Your task to perform on an android device: Open Google Chrome and open the bookmarks view Image 0: 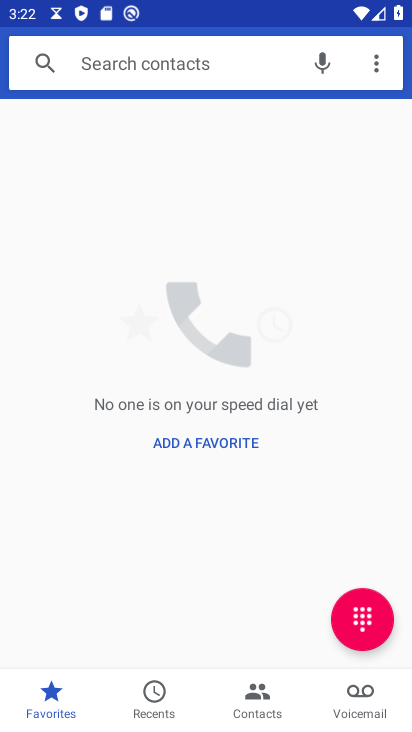
Step 0: press home button
Your task to perform on an android device: Open Google Chrome and open the bookmarks view Image 1: 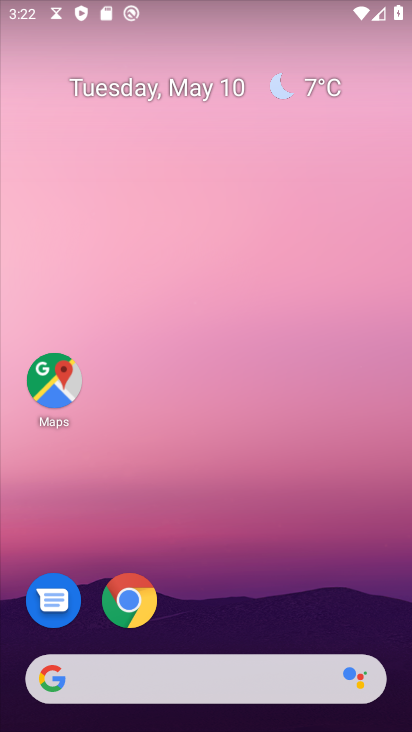
Step 1: click (127, 609)
Your task to perform on an android device: Open Google Chrome and open the bookmarks view Image 2: 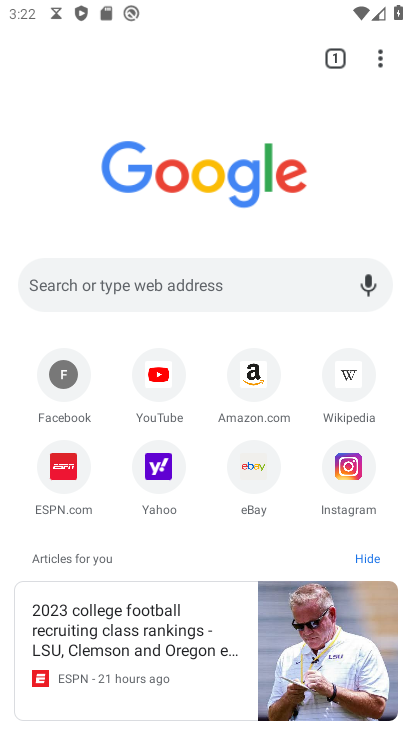
Step 2: click (384, 54)
Your task to perform on an android device: Open Google Chrome and open the bookmarks view Image 3: 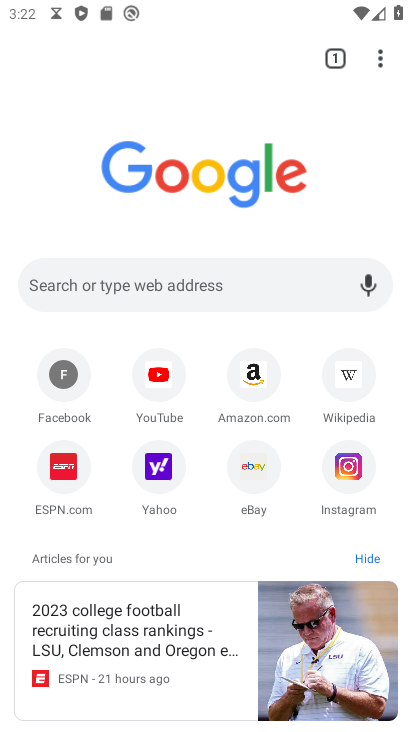
Step 3: click (373, 63)
Your task to perform on an android device: Open Google Chrome and open the bookmarks view Image 4: 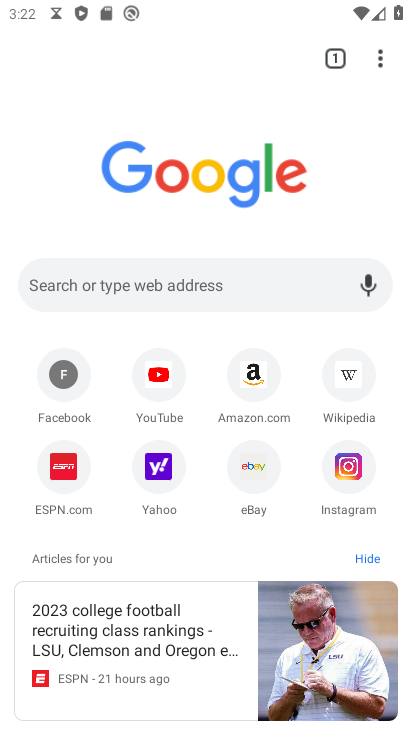
Step 4: click (373, 65)
Your task to perform on an android device: Open Google Chrome and open the bookmarks view Image 5: 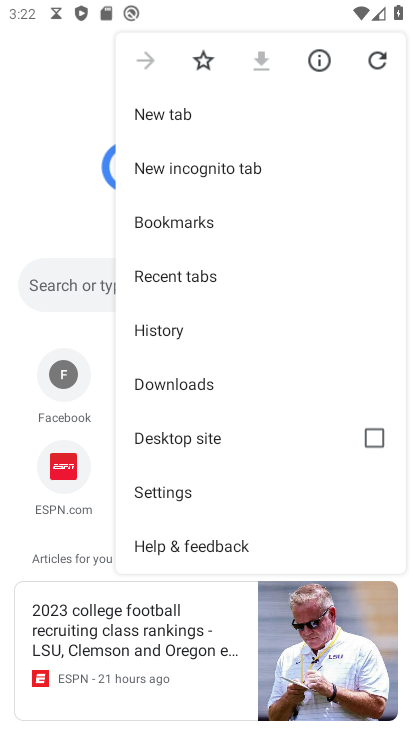
Step 5: click (282, 216)
Your task to perform on an android device: Open Google Chrome and open the bookmarks view Image 6: 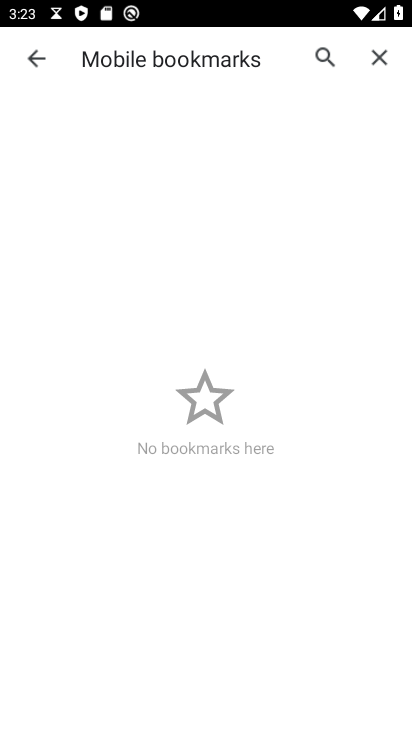
Step 6: task complete